Your task to perform on an android device: turn on data saver in the chrome app Image 0: 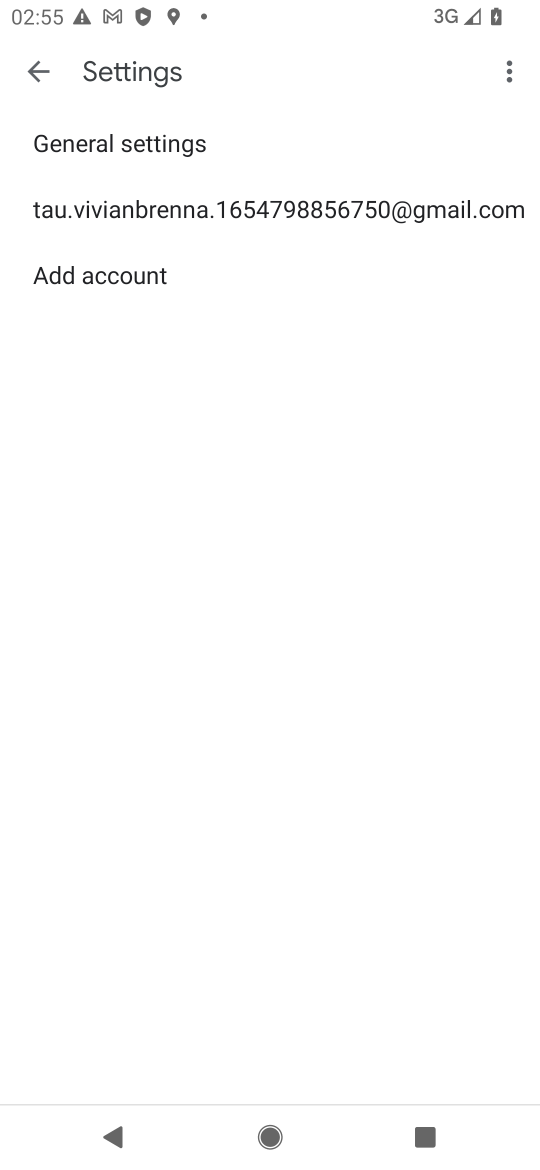
Step 0: press home button
Your task to perform on an android device: turn on data saver in the chrome app Image 1: 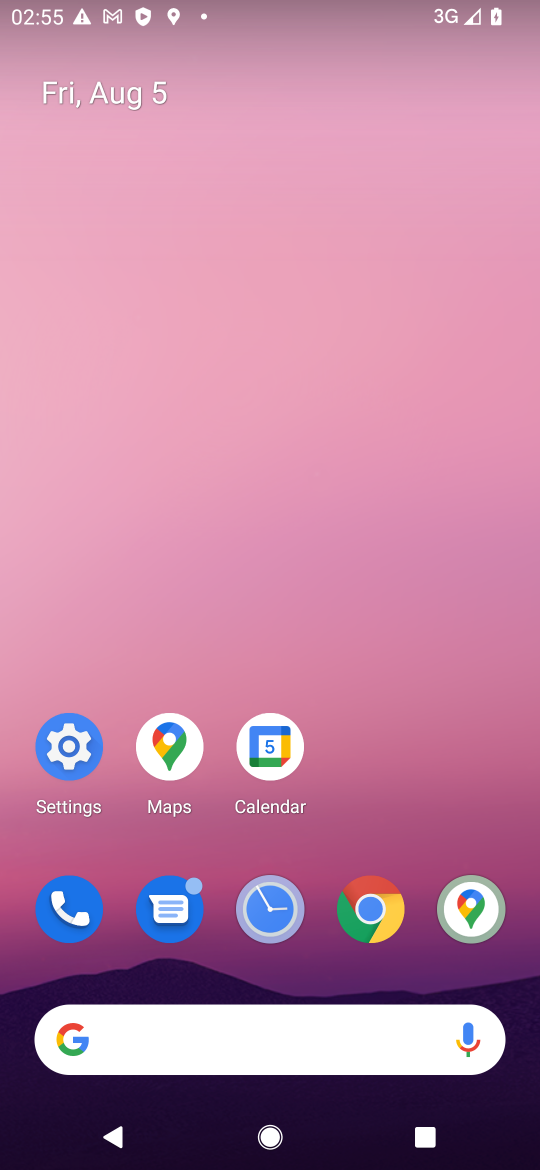
Step 1: click (373, 917)
Your task to perform on an android device: turn on data saver in the chrome app Image 2: 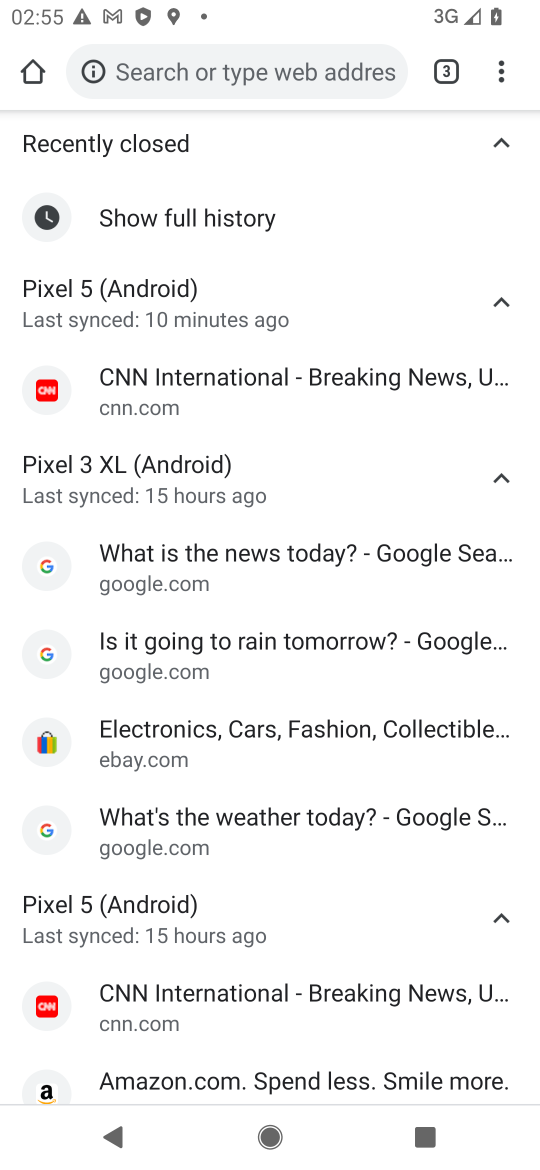
Step 2: click (509, 69)
Your task to perform on an android device: turn on data saver in the chrome app Image 3: 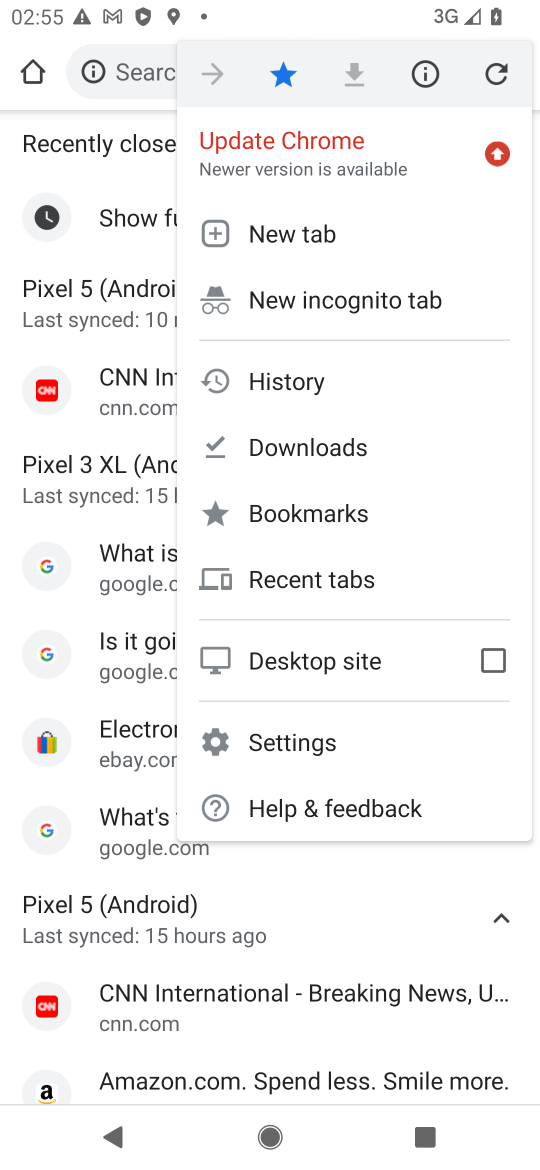
Step 3: click (294, 735)
Your task to perform on an android device: turn on data saver in the chrome app Image 4: 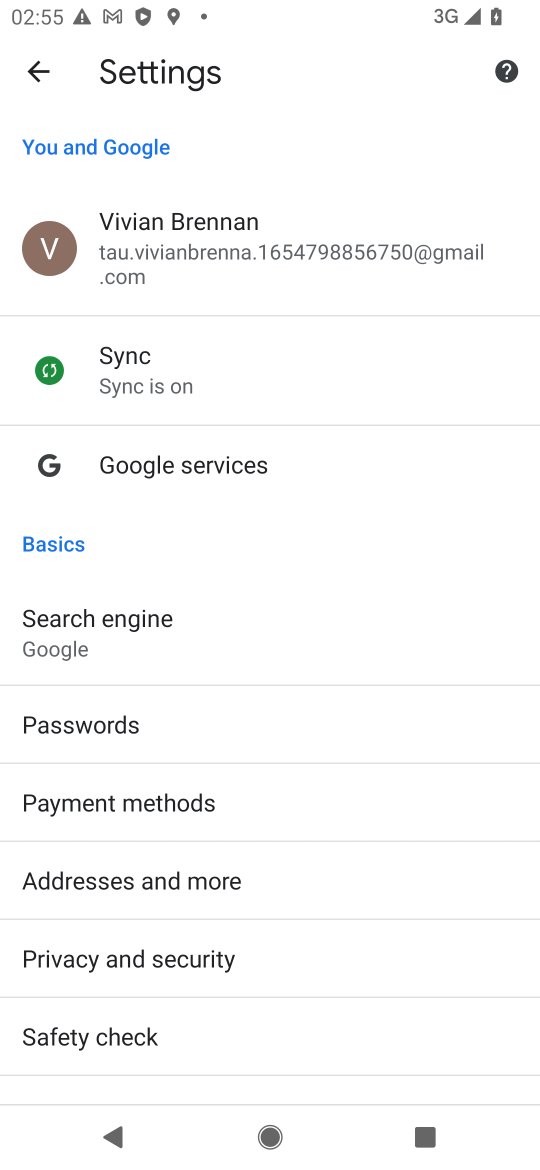
Step 4: drag from (329, 980) to (329, 199)
Your task to perform on an android device: turn on data saver in the chrome app Image 5: 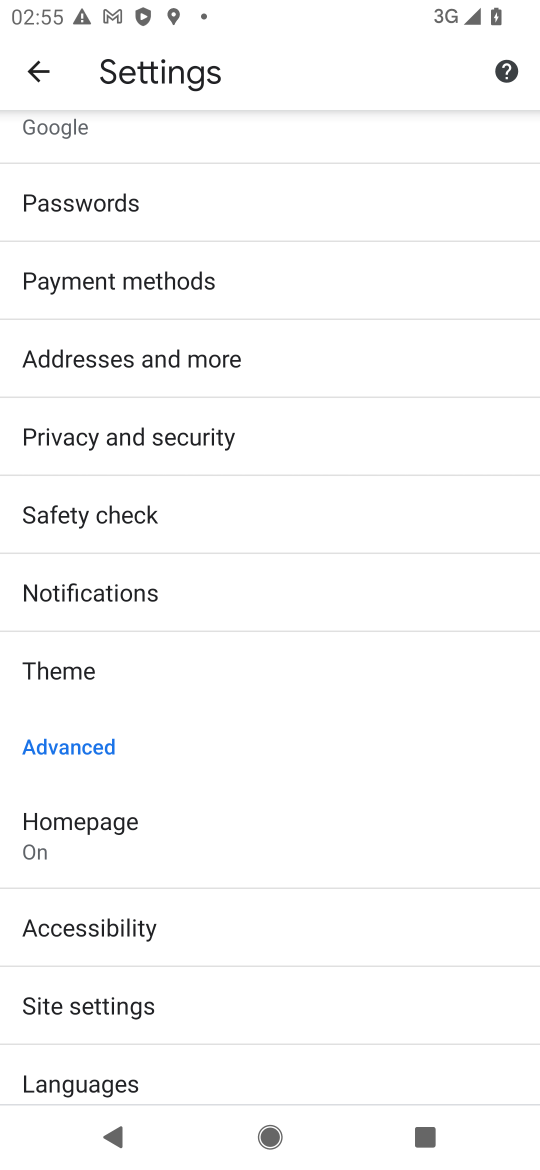
Step 5: drag from (309, 999) to (294, 238)
Your task to perform on an android device: turn on data saver in the chrome app Image 6: 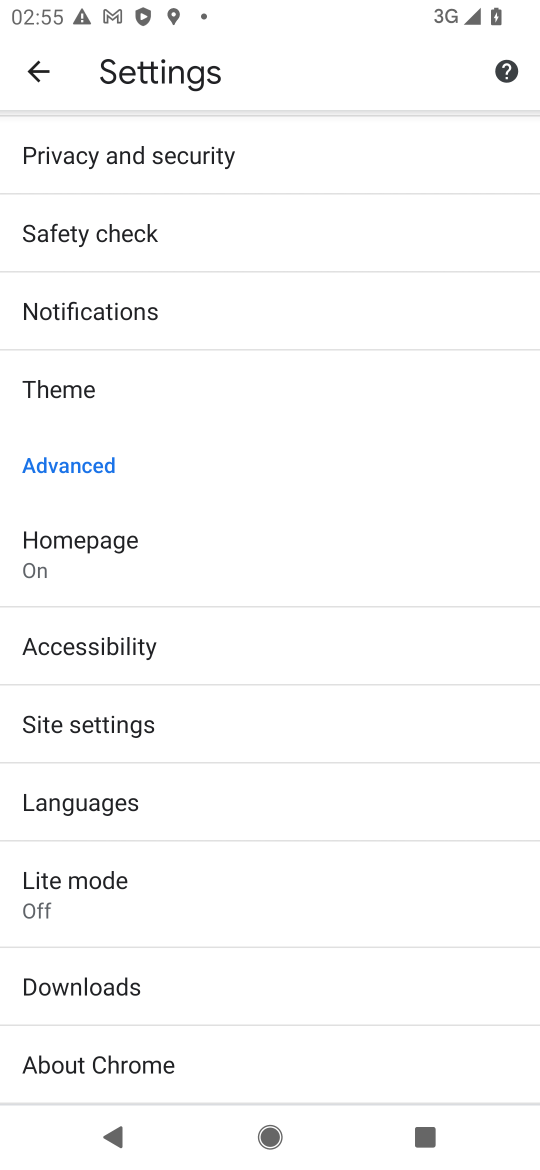
Step 6: click (106, 878)
Your task to perform on an android device: turn on data saver in the chrome app Image 7: 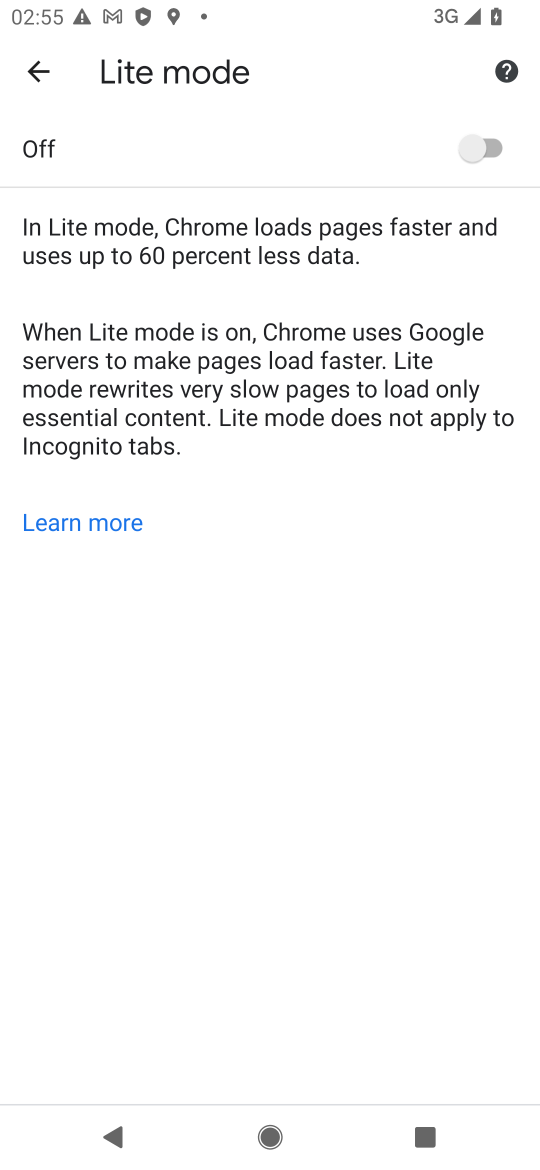
Step 7: click (473, 135)
Your task to perform on an android device: turn on data saver in the chrome app Image 8: 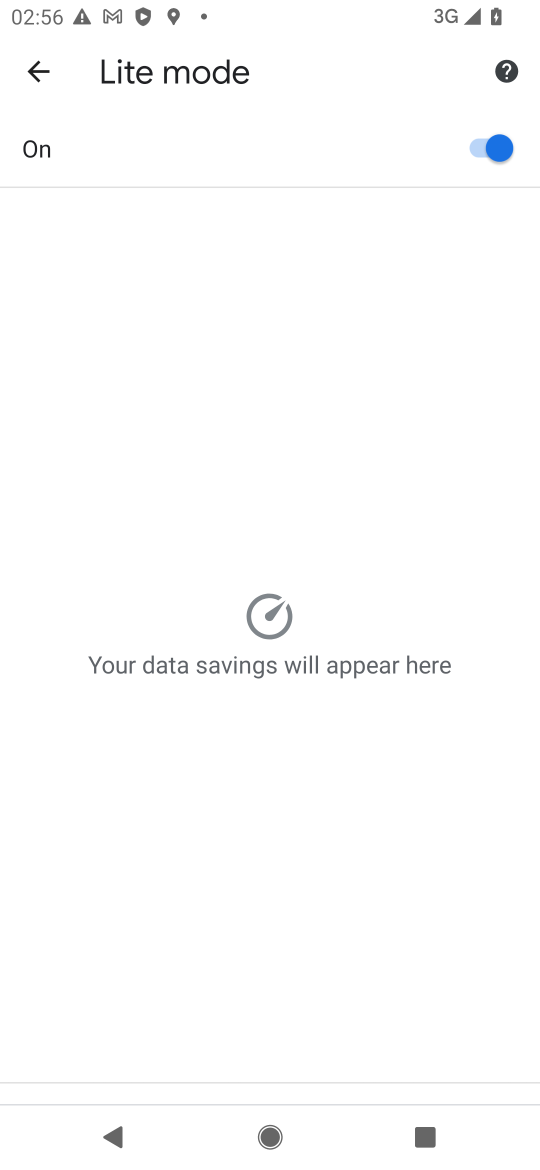
Step 8: task complete